Your task to perform on an android device: What's the weather today? Image 0: 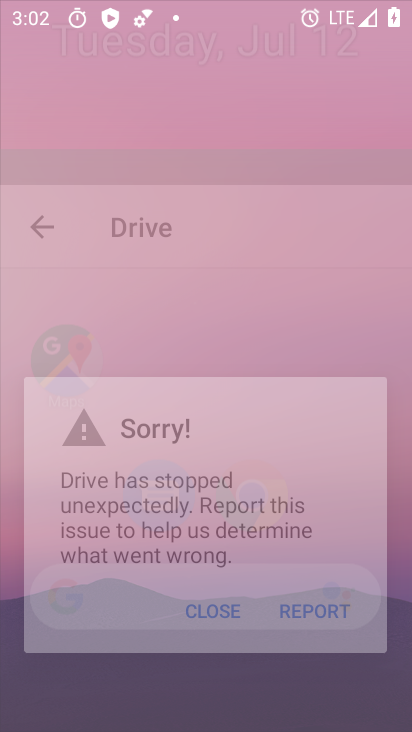
Step 0: press home button
Your task to perform on an android device: What's the weather today? Image 1: 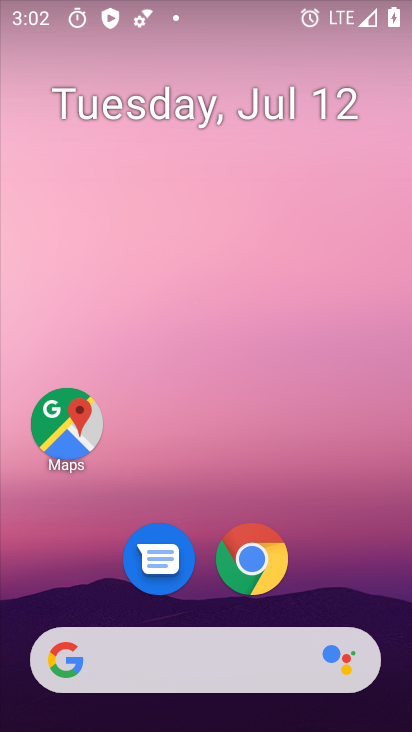
Step 1: click (254, 648)
Your task to perform on an android device: What's the weather today? Image 2: 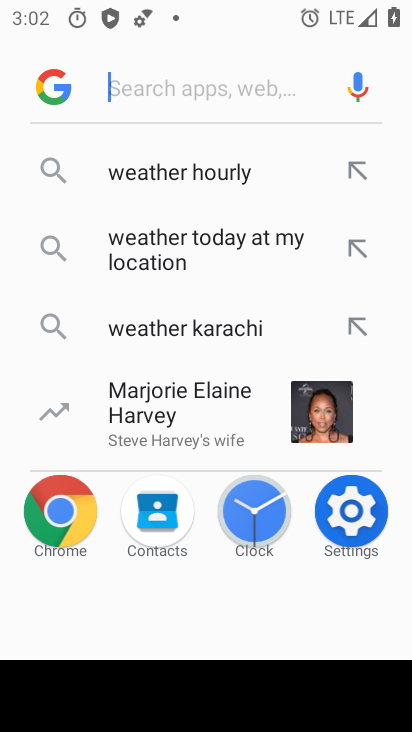
Step 2: type "weather"
Your task to perform on an android device: What's the weather today? Image 3: 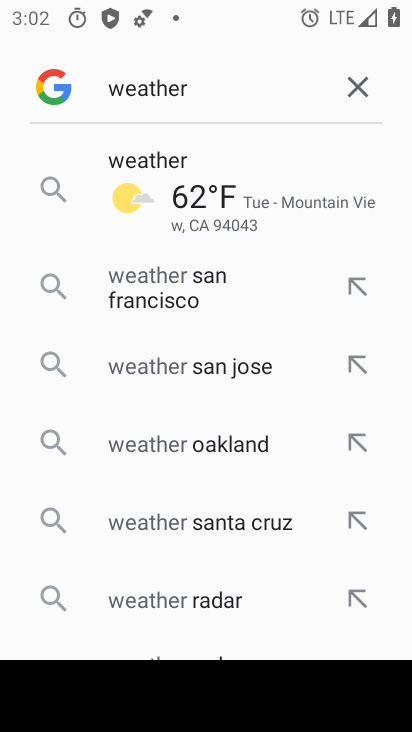
Step 3: click (222, 204)
Your task to perform on an android device: What's the weather today? Image 4: 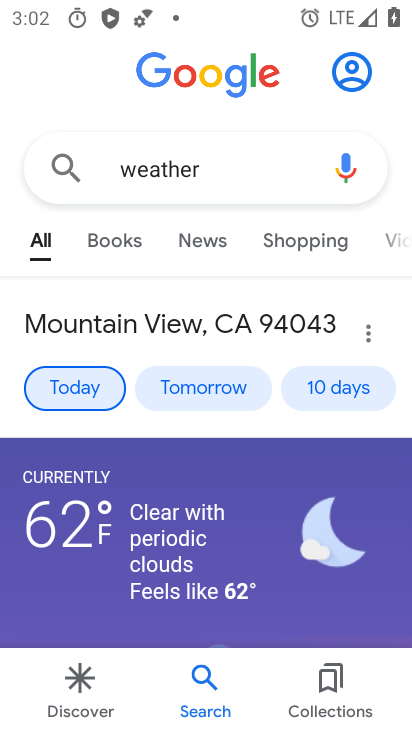
Step 4: task complete